Your task to perform on an android device: turn vacation reply on in the gmail app Image 0: 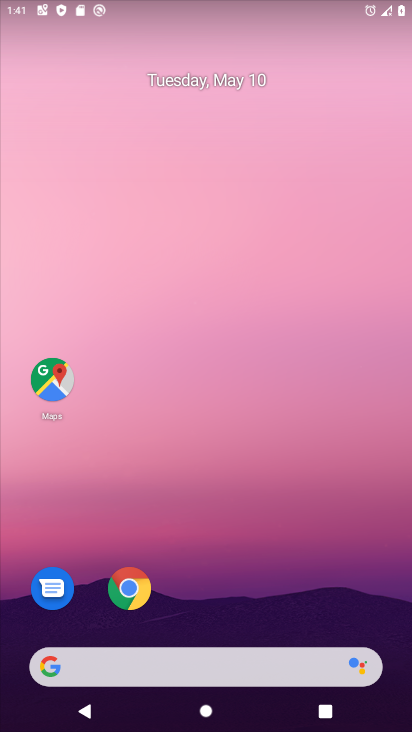
Step 0: drag from (220, 632) to (196, 146)
Your task to perform on an android device: turn vacation reply on in the gmail app Image 1: 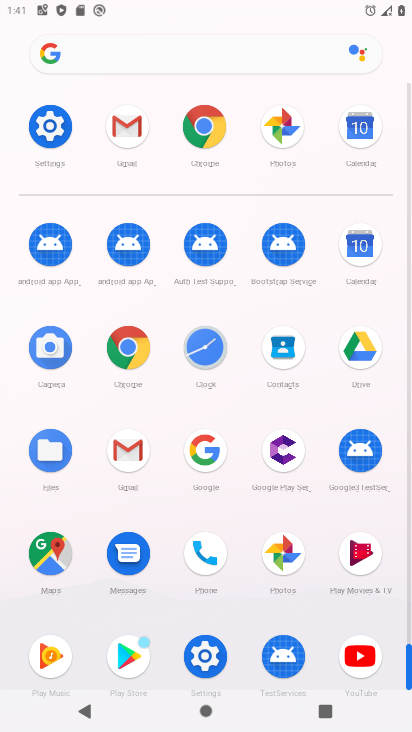
Step 1: click (128, 132)
Your task to perform on an android device: turn vacation reply on in the gmail app Image 2: 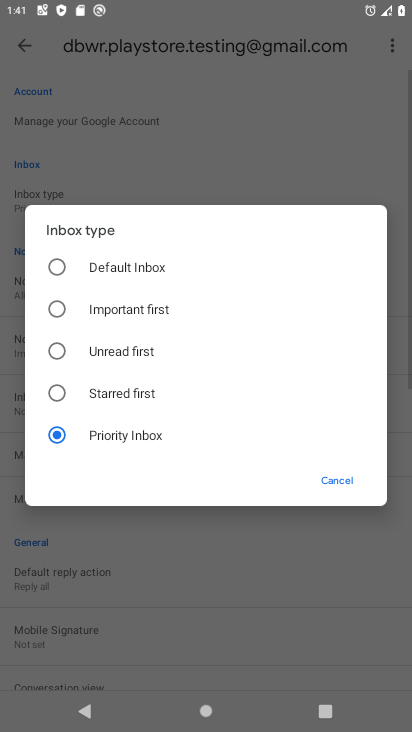
Step 2: click (338, 476)
Your task to perform on an android device: turn vacation reply on in the gmail app Image 3: 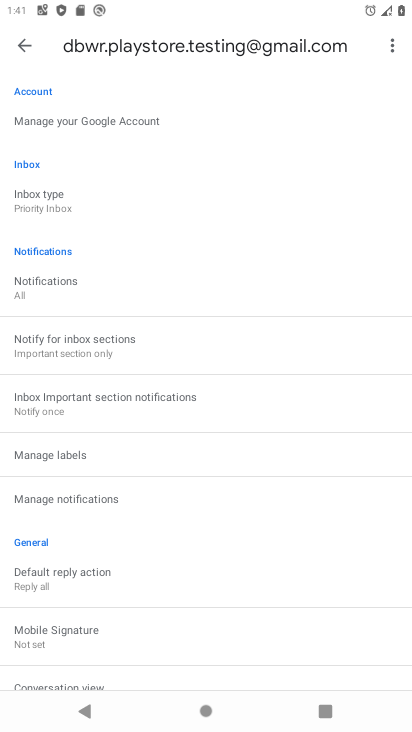
Step 3: drag from (124, 625) to (229, 117)
Your task to perform on an android device: turn vacation reply on in the gmail app Image 4: 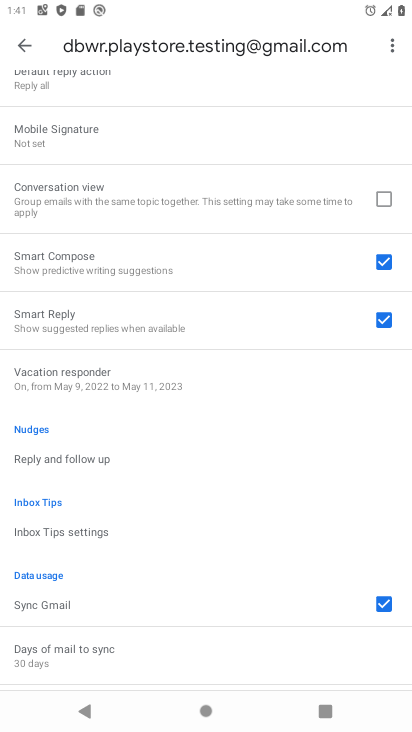
Step 4: click (71, 383)
Your task to perform on an android device: turn vacation reply on in the gmail app Image 5: 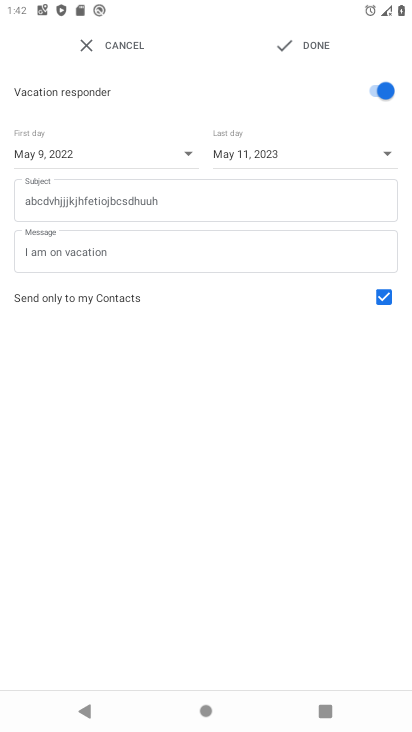
Step 5: task complete